Your task to perform on an android device: toggle wifi Image 0: 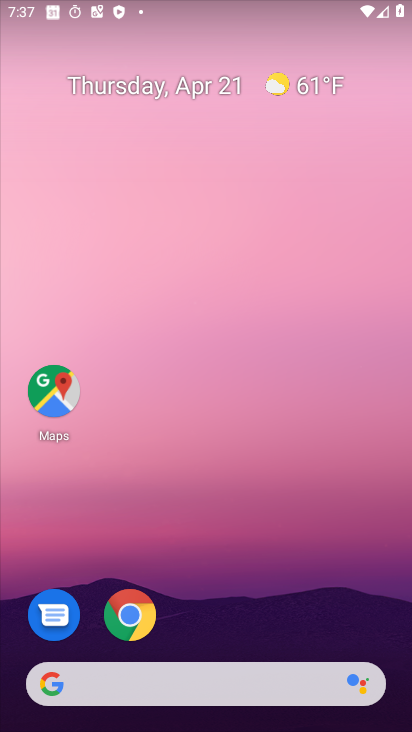
Step 0: drag from (195, 628) to (263, 98)
Your task to perform on an android device: toggle wifi Image 1: 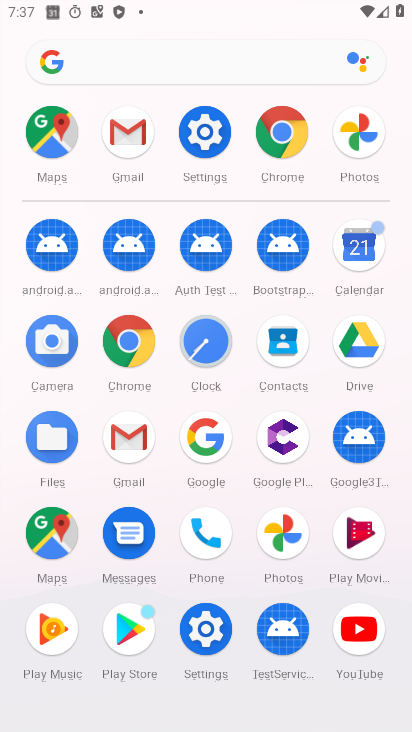
Step 1: drag from (173, 613) to (184, 231)
Your task to perform on an android device: toggle wifi Image 2: 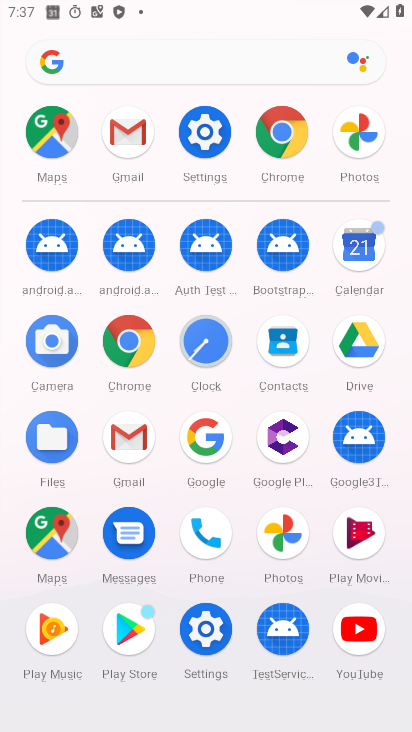
Step 2: click (215, 623)
Your task to perform on an android device: toggle wifi Image 3: 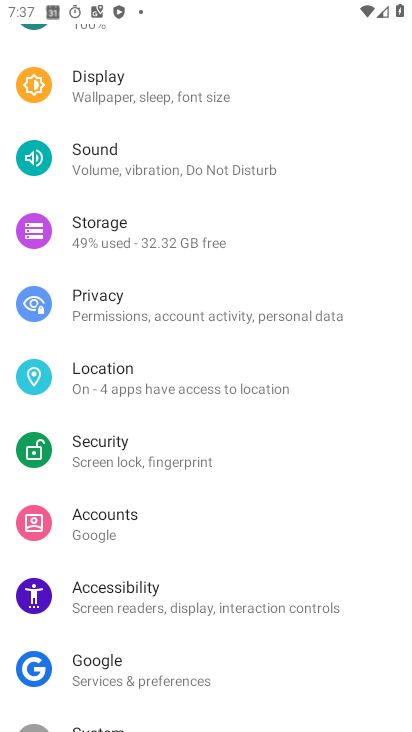
Step 3: drag from (163, 112) to (157, 654)
Your task to perform on an android device: toggle wifi Image 4: 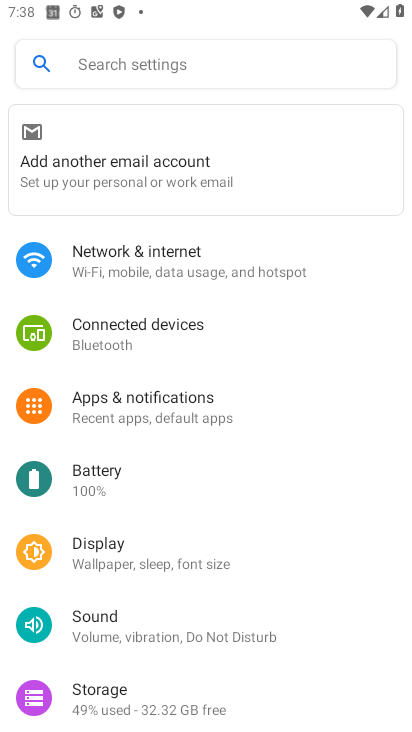
Step 4: click (138, 265)
Your task to perform on an android device: toggle wifi Image 5: 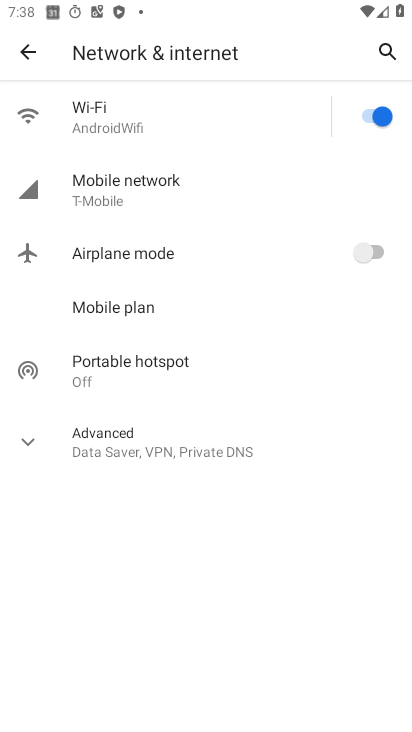
Step 5: click (231, 123)
Your task to perform on an android device: toggle wifi Image 6: 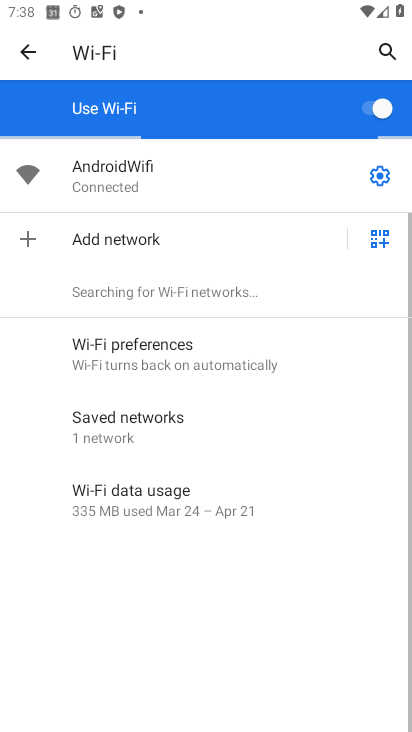
Step 6: click (361, 85)
Your task to perform on an android device: toggle wifi Image 7: 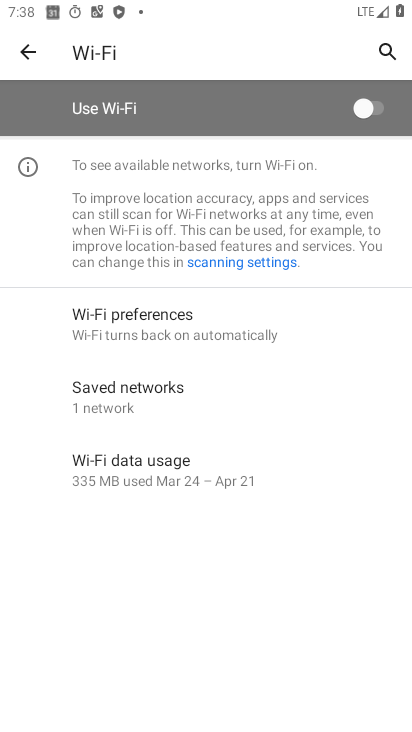
Step 7: task complete